Your task to perform on an android device: turn on showing notifications on the lock screen Image 0: 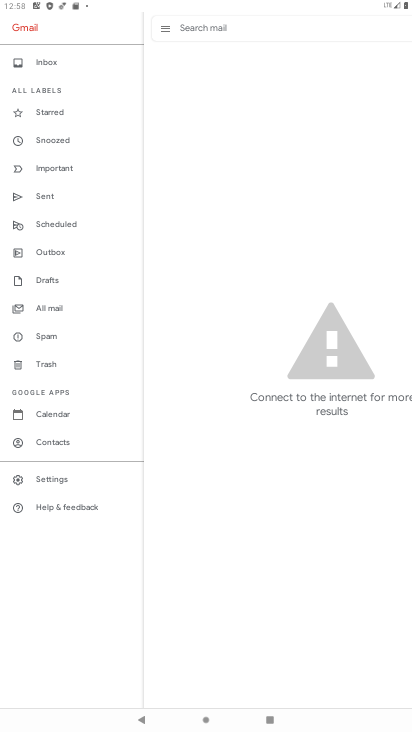
Step 0: press home button
Your task to perform on an android device: turn on showing notifications on the lock screen Image 1: 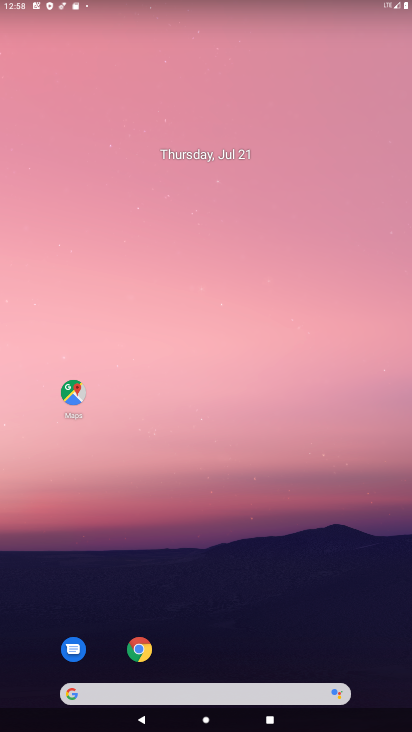
Step 1: drag from (231, 724) to (226, 177)
Your task to perform on an android device: turn on showing notifications on the lock screen Image 2: 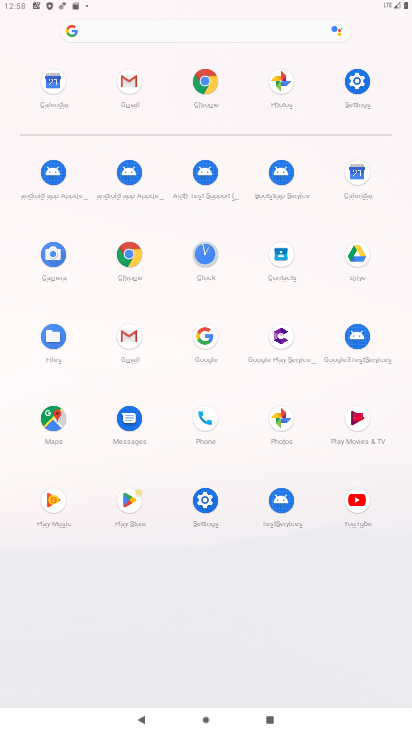
Step 2: click (362, 78)
Your task to perform on an android device: turn on showing notifications on the lock screen Image 3: 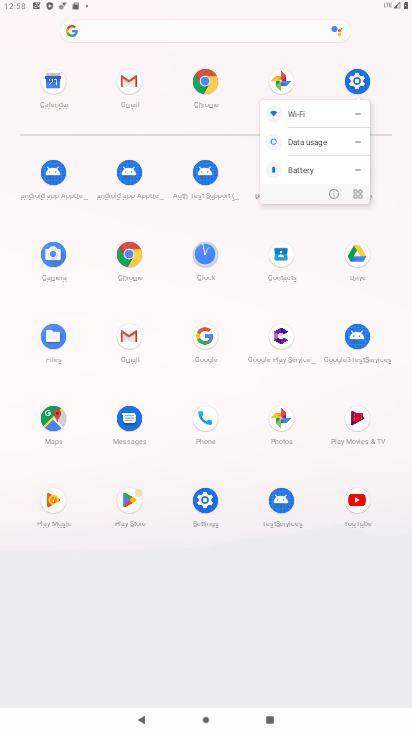
Step 3: click (362, 79)
Your task to perform on an android device: turn on showing notifications on the lock screen Image 4: 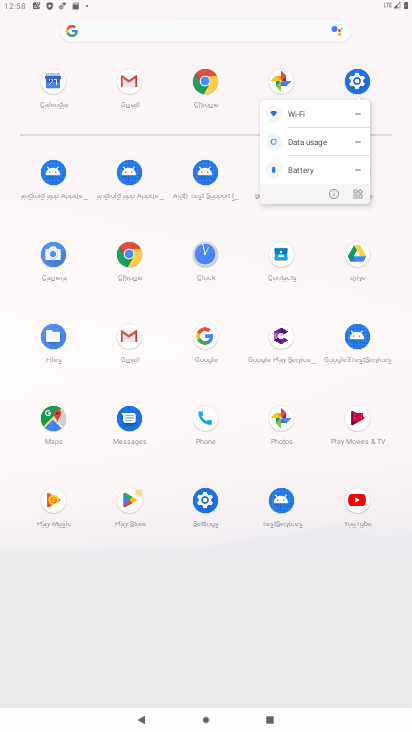
Step 4: click (354, 76)
Your task to perform on an android device: turn on showing notifications on the lock screen Image 5: 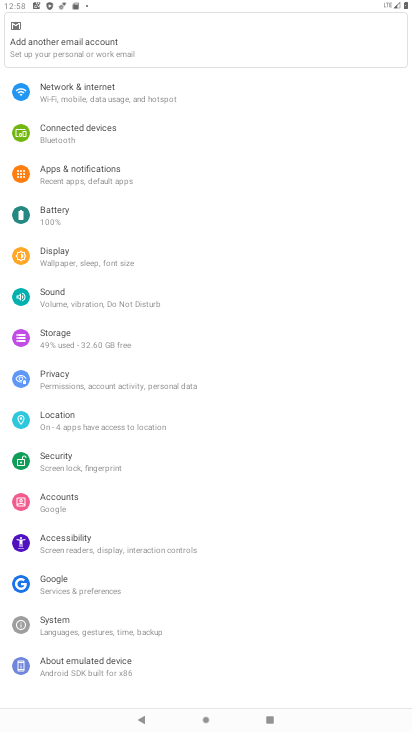
Step 5: click (72, 175)
Your task to perform on an android device: turn on showing notifications on the lock screen Image 6: 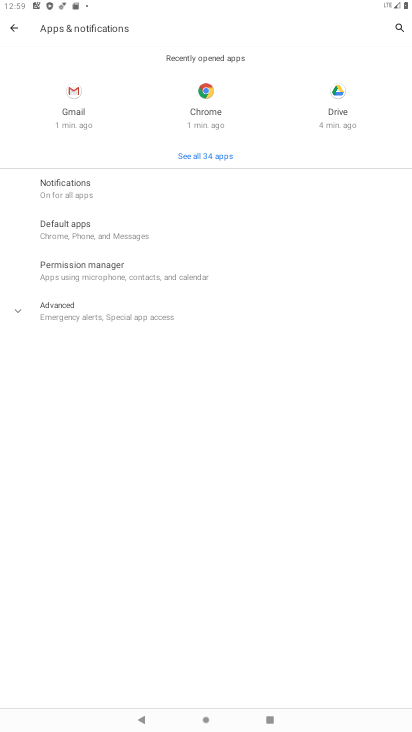
Step 6: click (62, 193)
Your task to perform on an android device: turn on showing notifications on the lock screen Image 7: 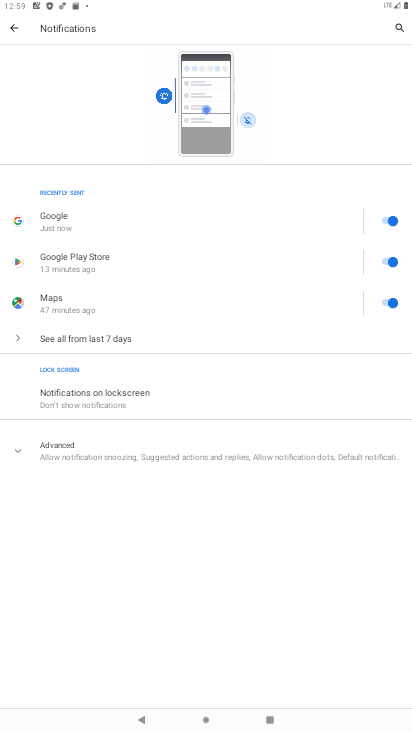
Step 7: task complete